Your task to perform on an android device: check google app version Image 0: 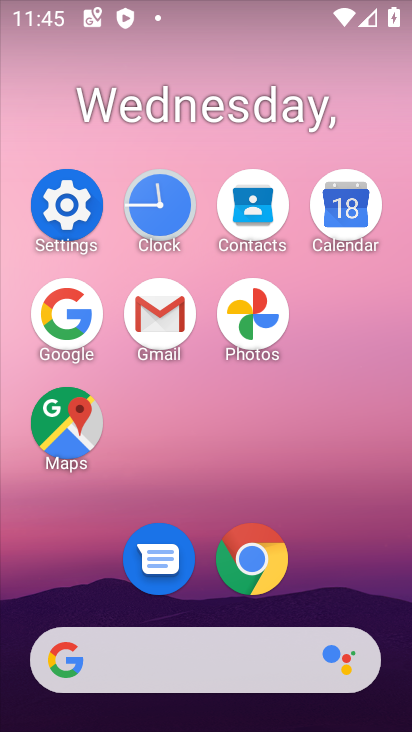
Step 0: click (72, 311)
Your task to perform on an android device: check google app version Image 1: 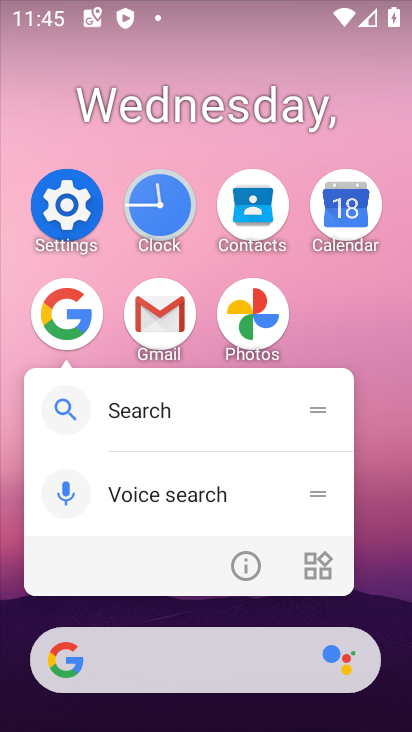
Step 1: click (249, 564)
Your task to perform on an android device: check google app version Image 2: 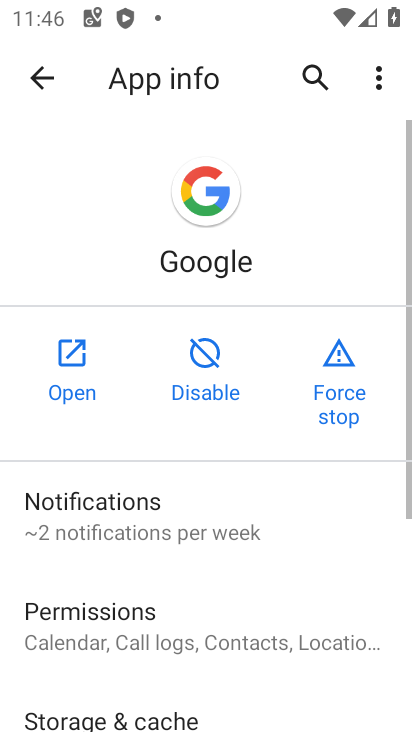
Step 2: drag from (226, 573) to (243, 221)
Your task to perform on an android device: check google app version Image 3: 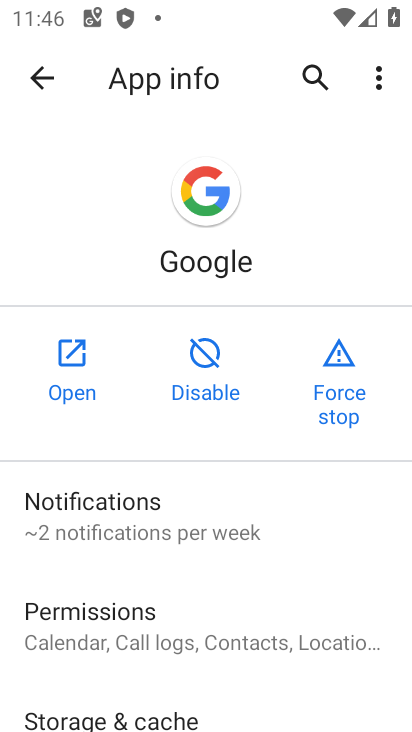
Step 3: drag from (288, 563) to (336, 114)
Your task to perform on an android device: check google app version Image 4: 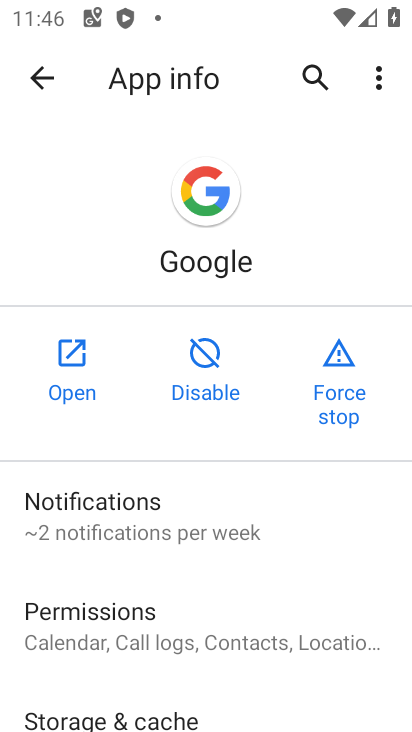
Step 4: drag from (303, 547) to (346, 75)
Your task to perform on an android device: check google app version Image 5: 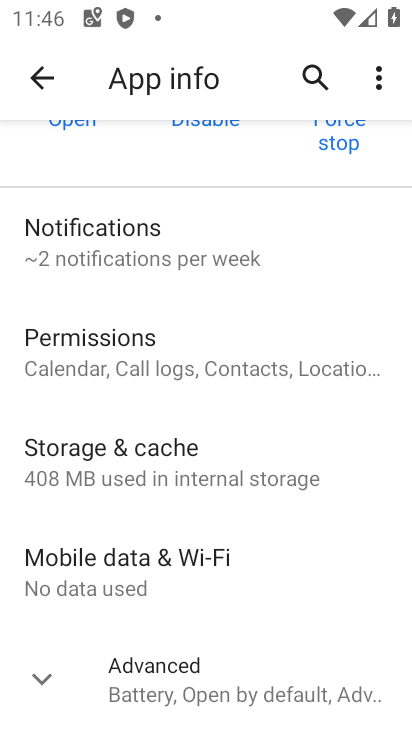
Step 5: click (248, 681)
Your task to perform on an android device: check google app version Image 6: 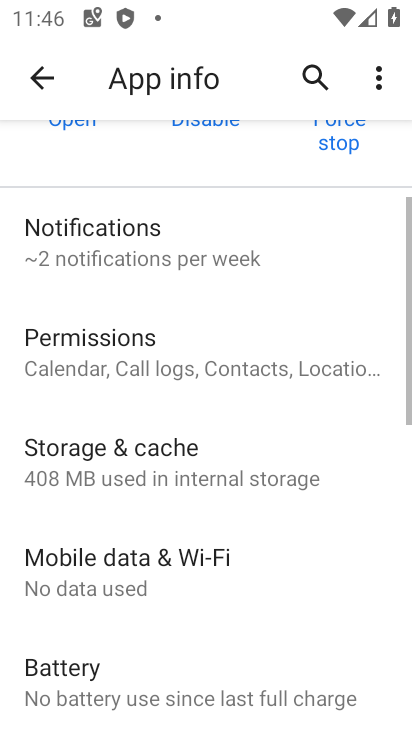
Step 6: task complete